Your task to perform on an android device: search for starred emails in the gmail app Image 0: 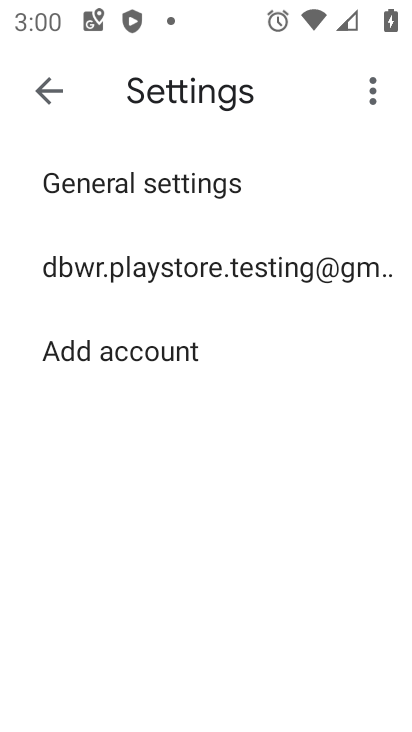
Step 0: press home button
Your task to perform on an android device: search for starred emails in the gmail app Image 1: 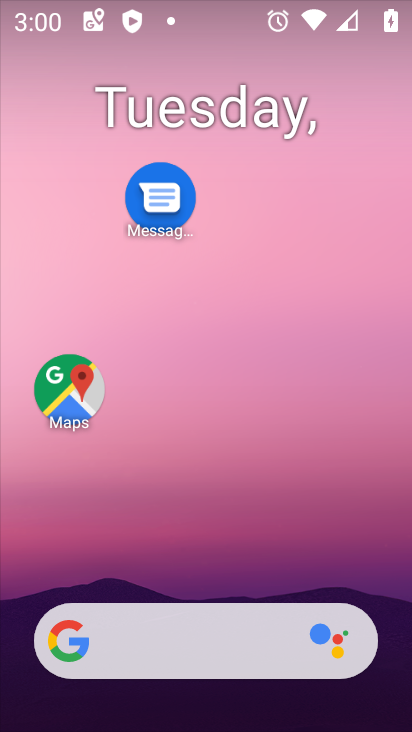
Step 1: drag from (230, 509) to (254, 208)
Your task to perform on an android device: search for starred emails in the gmail app Image 2: 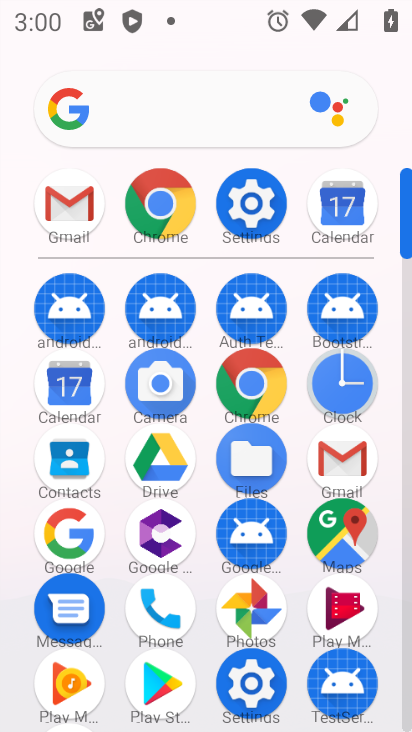
Step 2: click (342, 464)
Your task to perform on an android device: search for starred emails in the gmail app Image 3: 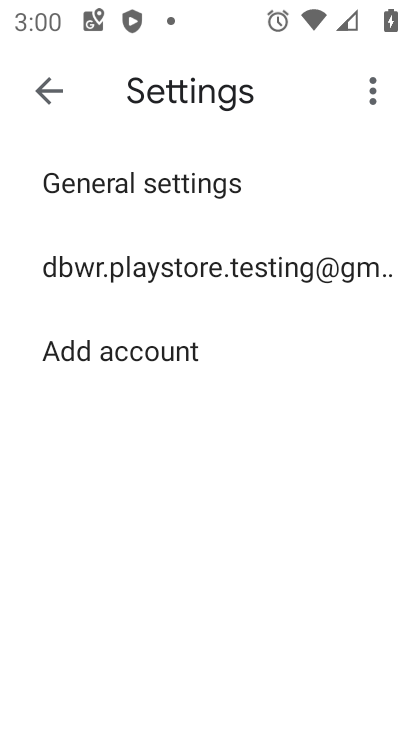
Step 3: click (46, 81)
Your task to perform on an android device: search for starred emails in the gmail app Image 4: 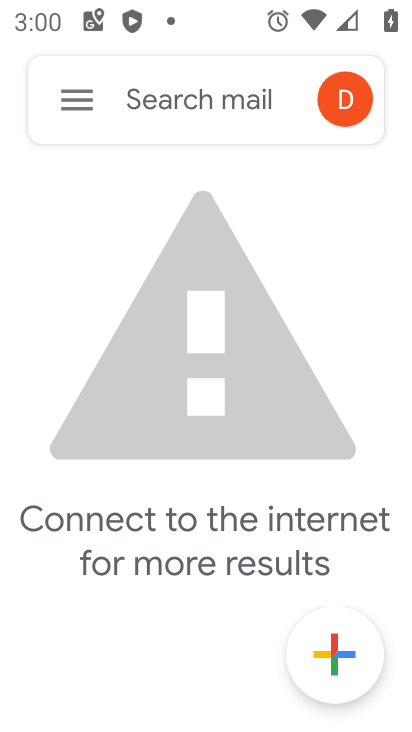
Step 4: click (72, 96)
Your task to perform on an android device: search for starred emails in the gmail app Image 5: 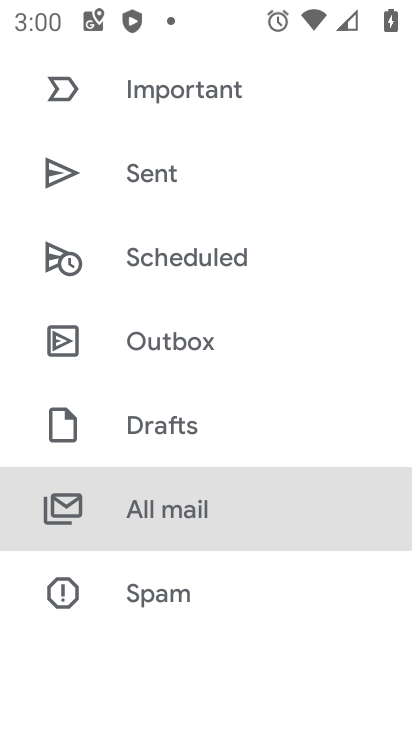
Step 5: drag from (143, 237) to (162, 474)
Your task to perform on an android device: search for starred emails in the gmail app Image 6: 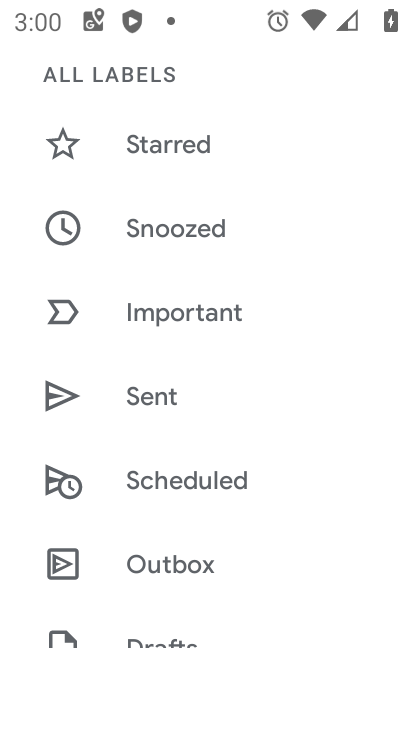
Step 6: click (198, 157)
Your task to perform on an android device: search for starred emails in the gmail app Image 7: 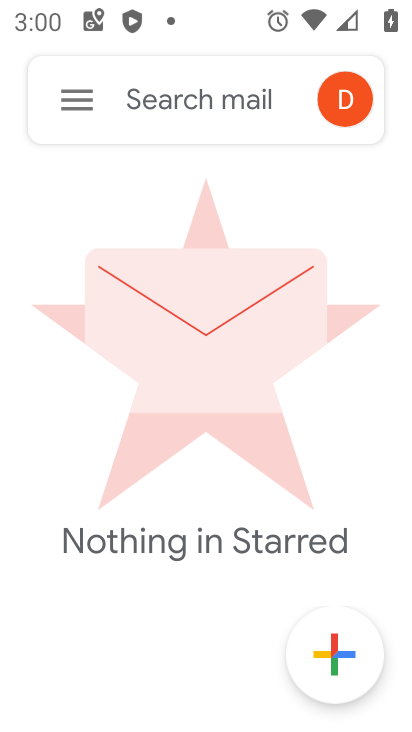
Step 7: task complete